Your task to perform on an android device: Open calendar and show me the second week of next month Image 0: 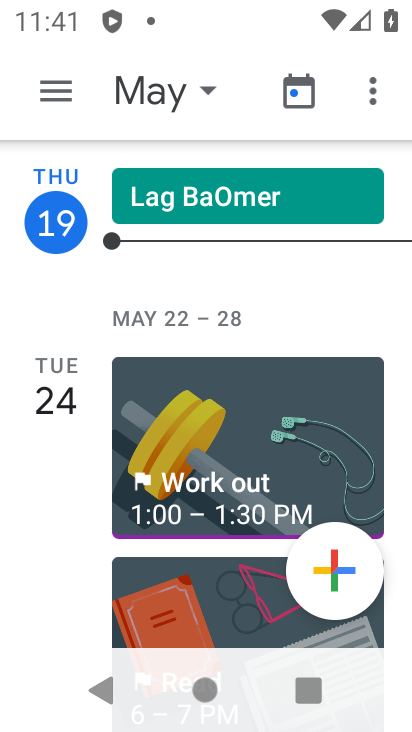
Step 0: click (193, 90)
Your task to perform on an android device: Open calendar and show me the second week of next month Image 1: 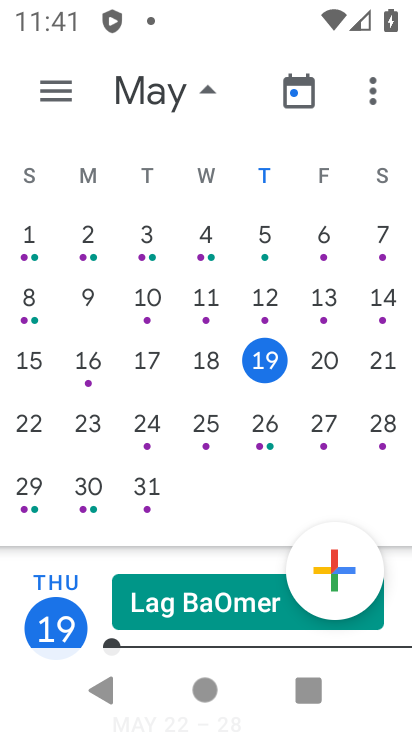
Step 1: drag from (340, 371) to (67, 438)
Your task to perform on an android device: Open calendar and show me the second week of next month Image 2: 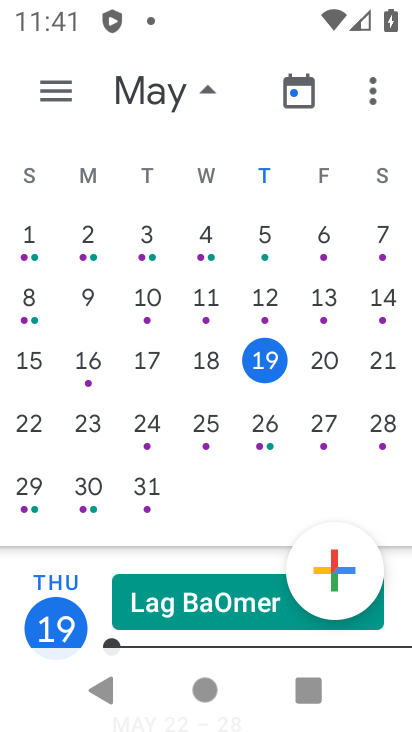
Step 2: click (6, 370)
Your task to perform on an android device: Open calendar and show me the second week of next month Image 3: 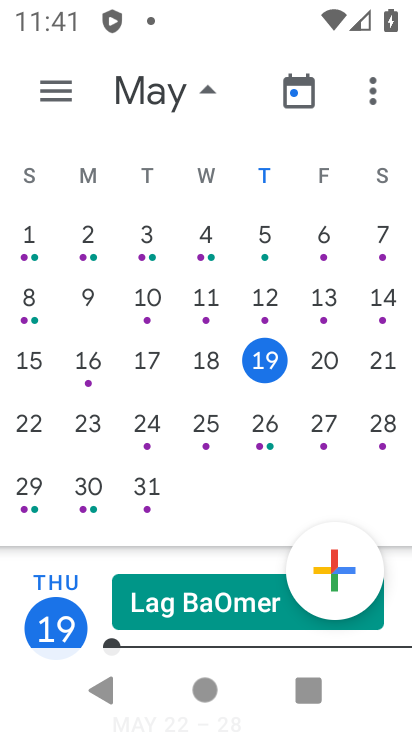
Step 3: drag from (253, 329) to (51, 308)
Your task to perform on an android device: Open calendar and show me the second week of next month Image 4: 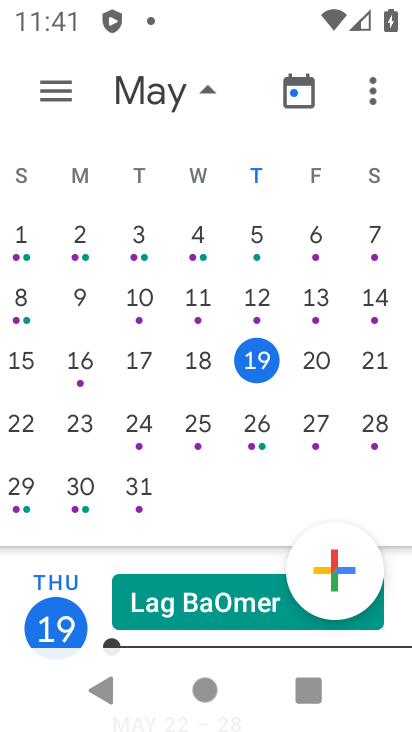
Step 4: drag from (200, 361) to (11, 411)
Your task to perform on an android device: Open calendar and show me the second week of next month Image 5: 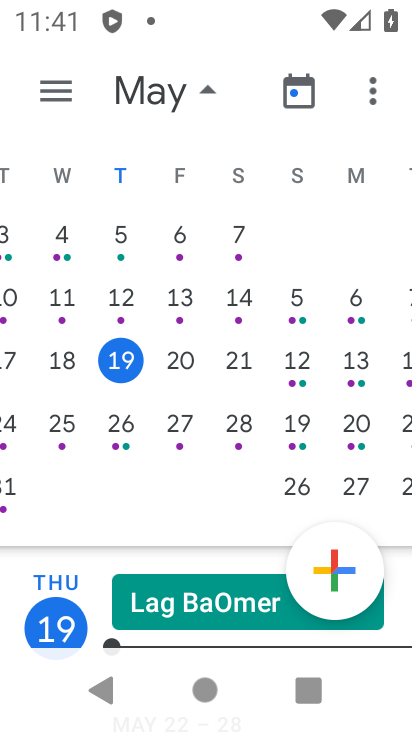
Step 5: drag from (87, 359) to (47, 441)
Your task to perform on an android device: Open calendar and show me the second week of next month Image 6: 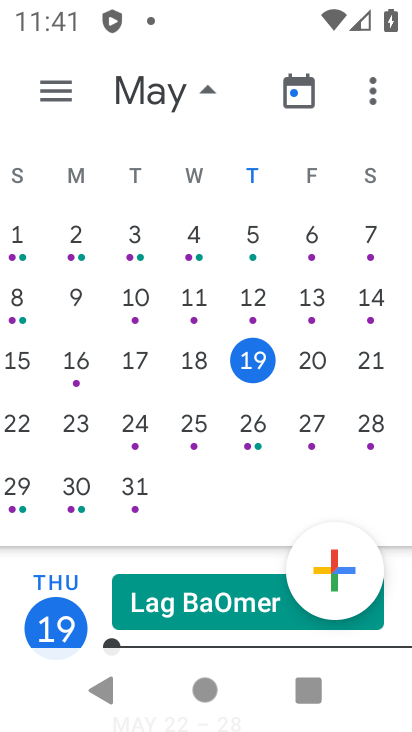
Step 6: drag from (218, 400) to (6, 464)
Your task to perform on an android device: Open calendar and show me the second week of next month Image 7: 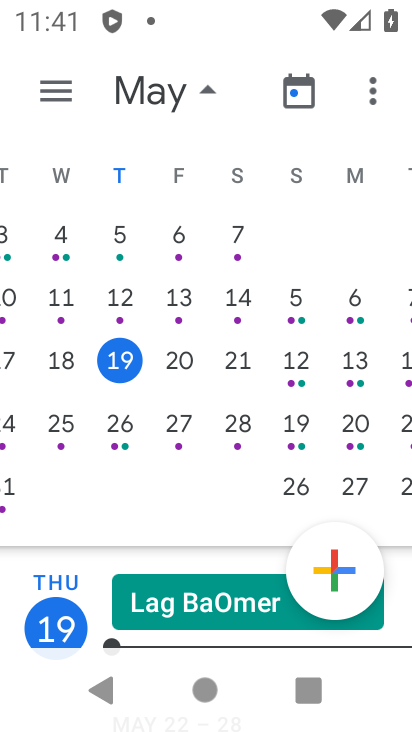
Step 7: drag from (103, 374) to (24, 418)
Your task to perform on an android device: Open calendar and show me the second week of next month Image 8: 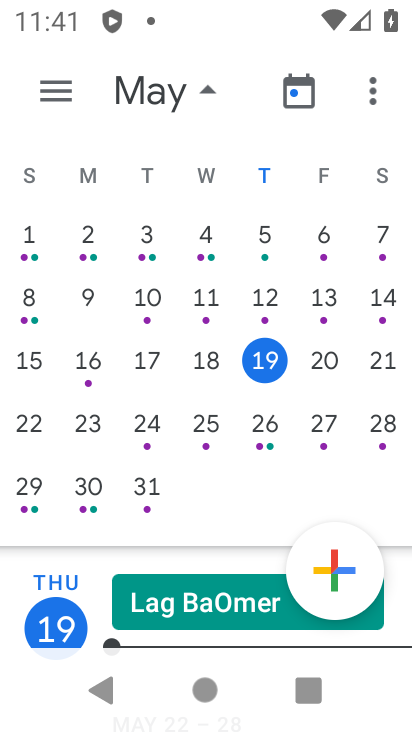
Step 8: drag from (265, 386) to (0, 432)
Your task to perform on an android device: Open calendar and show me the second week of next month Image 9: 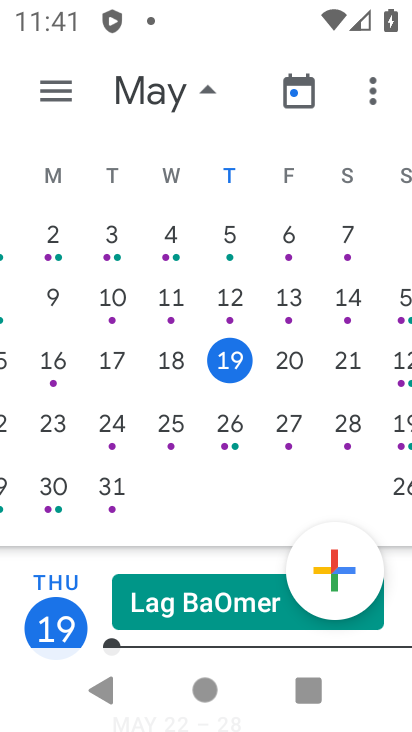
Step 9: drag from (250, 339) to (35, 390)
Your task to perform on an android device: Open calendar and show me the second week of next month Image 10: 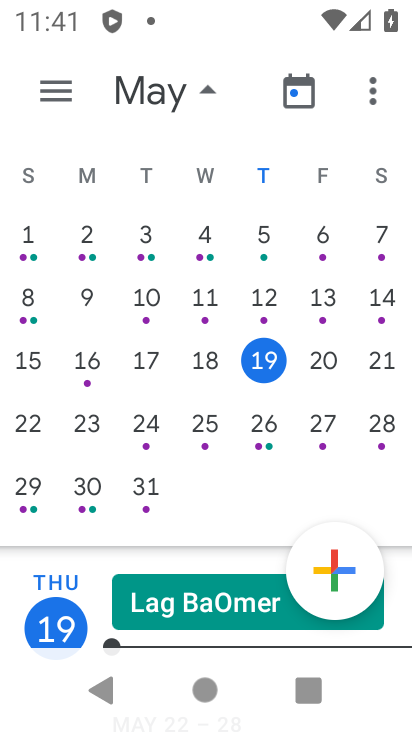
Step 10: drag from (267, 365) to (61, 442)
Your task to perform on an android device: Open calendar and show me the second week of next month Image 11: 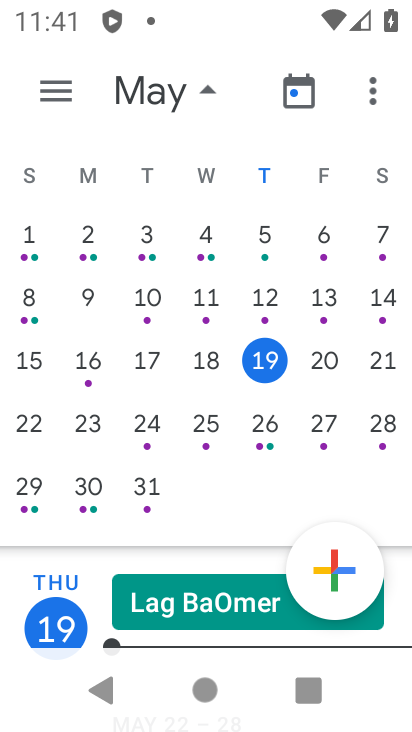
Step 11: drag from (351, 383) to (108, 441)
Your task to perform on an android device: Open calendar and show me the second week of next month Image 12: 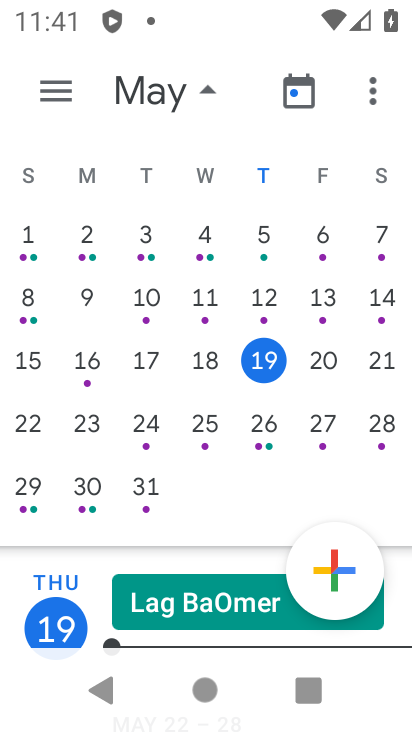
Step 12: drag from (367, 354) to (5, 390)
Your task to perform on an android device: Open calendar and show me the second week of next month Image 13: 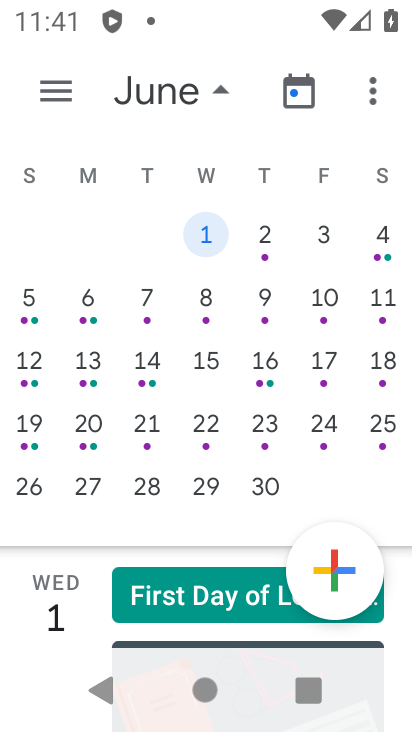
Step 13: drag from (228, 323) to (22, 347)
Your task to perform on an android device: Open calendar and show me the second week of next month Image 14: 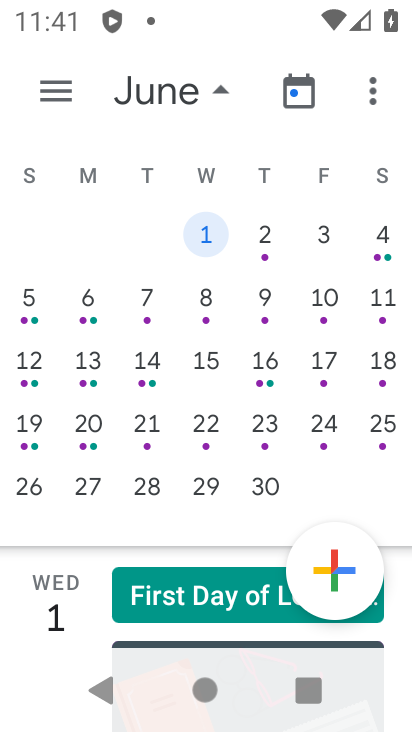
Step 14: click (207, 294)
Your task to perform on an android device: Open calendar and show me the second week of next month Image 15: 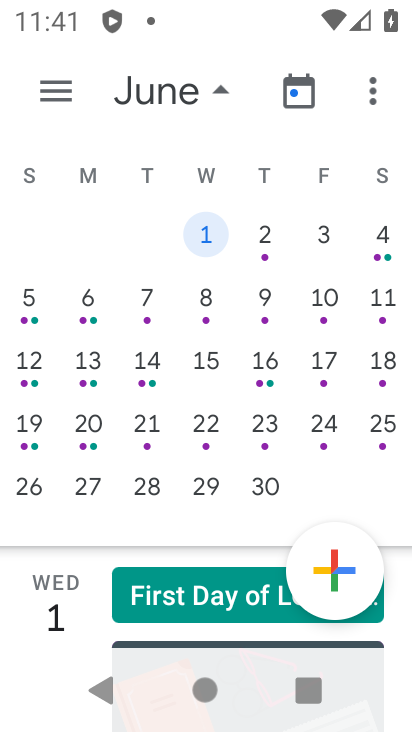
Step 15: click (207, 294)
Your task to perform on an android device: Open calendar and show me the second week of next month Image 16: 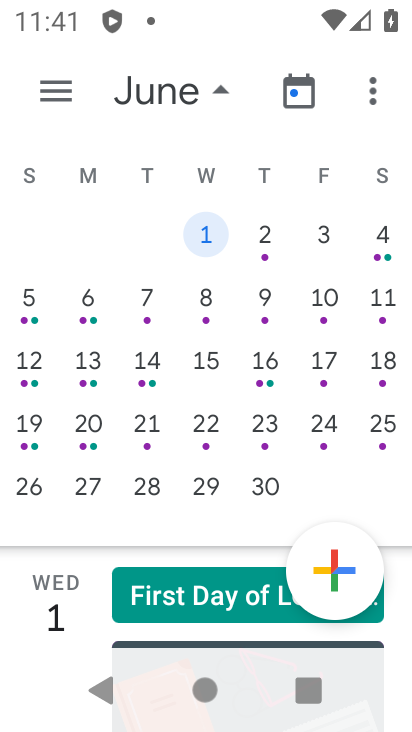
Step 16: click (204, 298)
Your task to perform on an android device: Open calendar and show me the second week of next month Image 17: 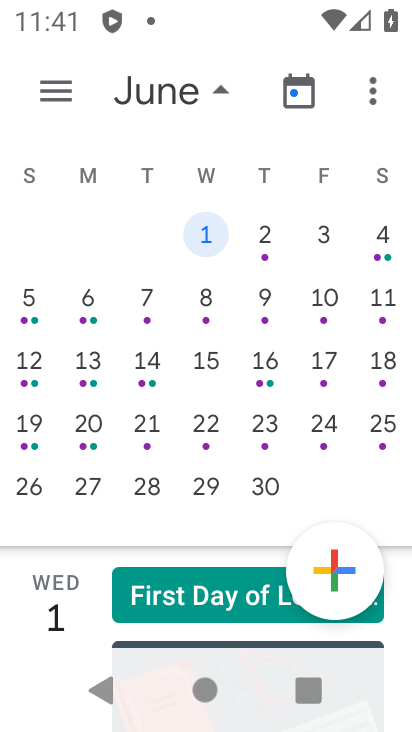
Step 17: click (204, 298)
Your task to perform on an android device: Open calendar and show me the second week of next month Image 18: 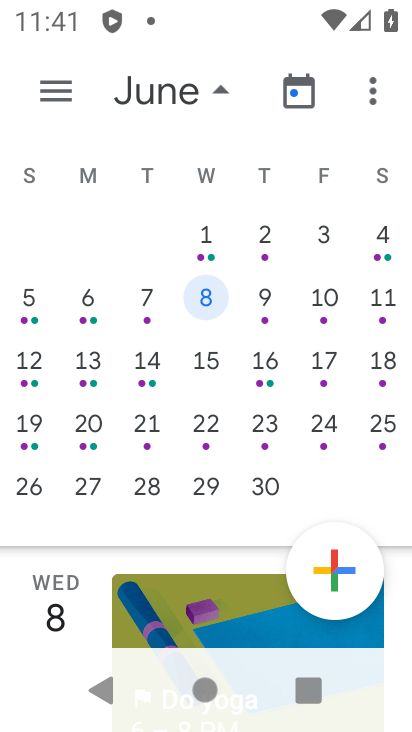
Step 18: click (204, 298)
Your task to perform on an android device: Open calendar and show me the second week of next month Image 19: 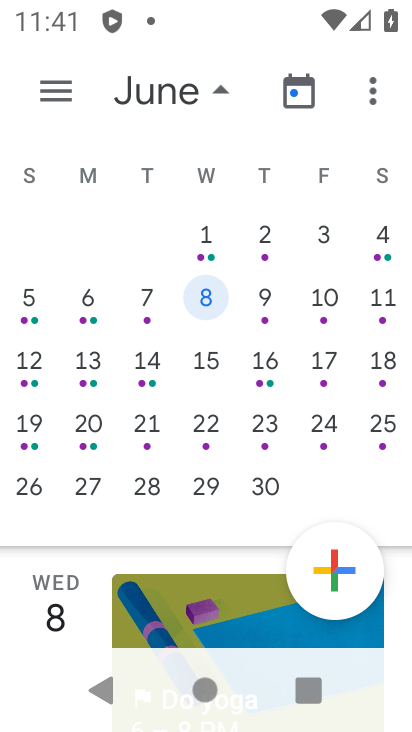
Step 19: click (204, 297)
Your task to perform on an android device: Open calendar and show me the second week of next month Image 20: 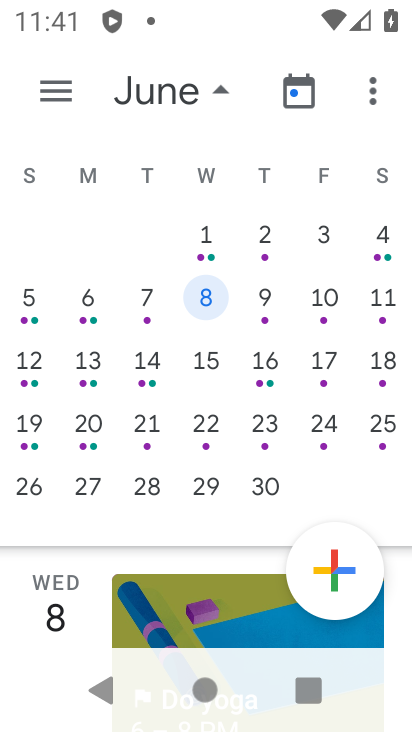
Step 20: task complete